Your task to perform on an android device: turn off sleep mode Image 0: 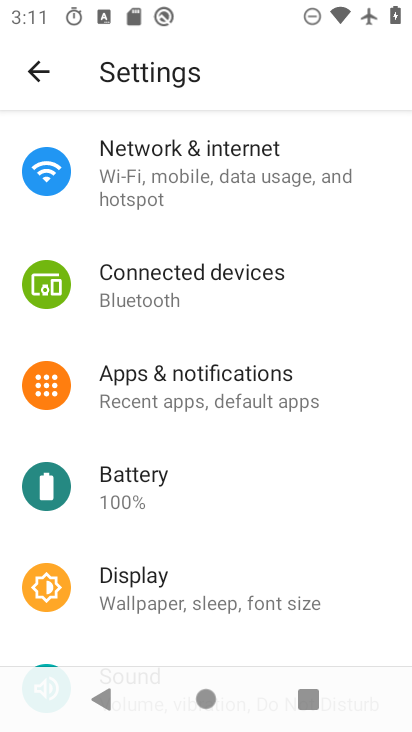
Step 0: press home button
Your task to perform on an android device: turn off sleep mode Image 1: 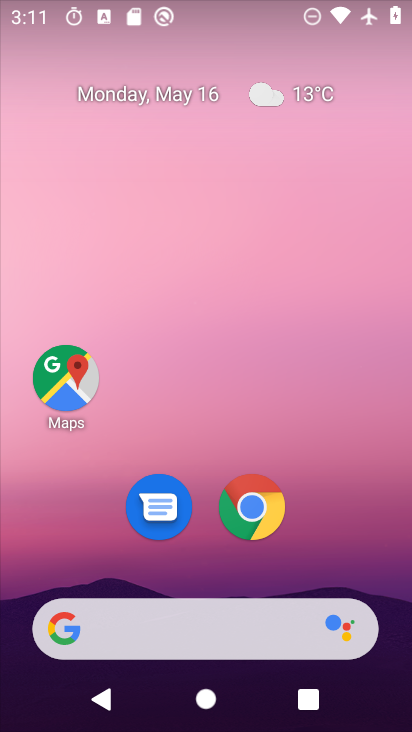
Step 1: drag from (325, 538) to (334, 205)
Your task to perform on an android device: turn off sleep mode Image 2: 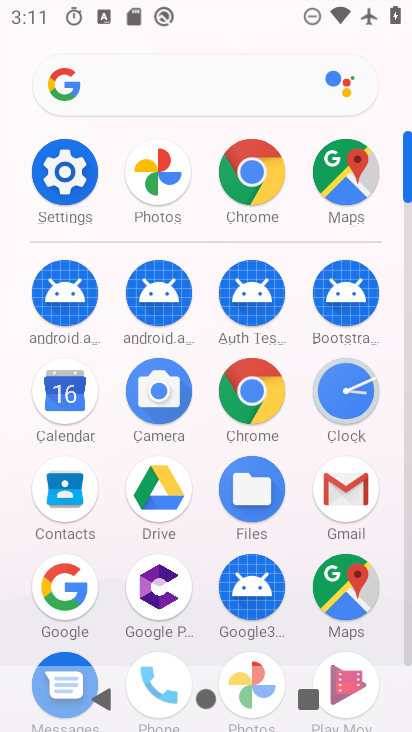
Step 2: drag from (123, 263) to (109, 418)
Your task to perform on an android device: turn off sleep mode Image 3: 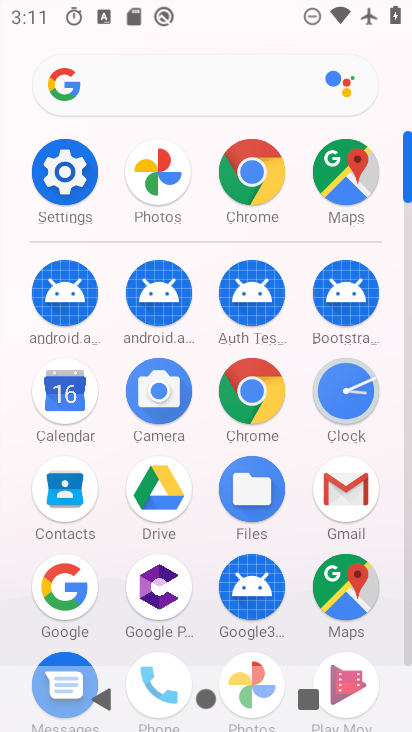
Step 3: click (72, 214)
Your task to perform on an android device: turn off sleep mode Image 4: 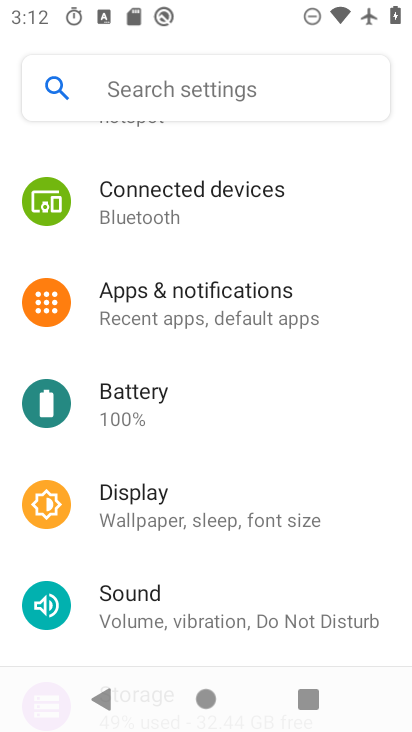
Step 4: task complete